Your task to perform on an android device: toggle notification dots Image 0: 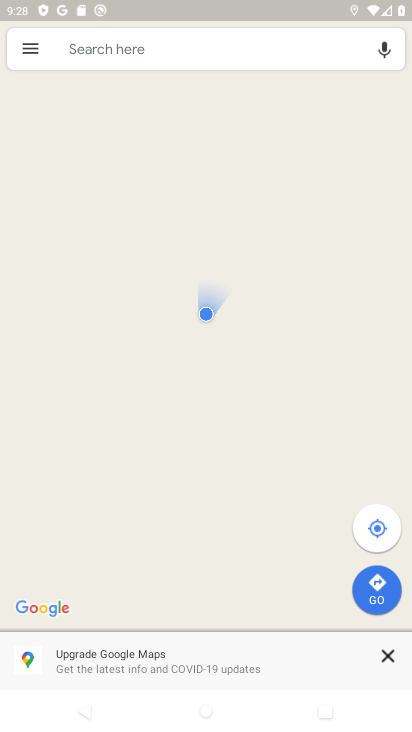
Step 0: press home button
Your task to perform on an android device: toggle notification dots Image 1: 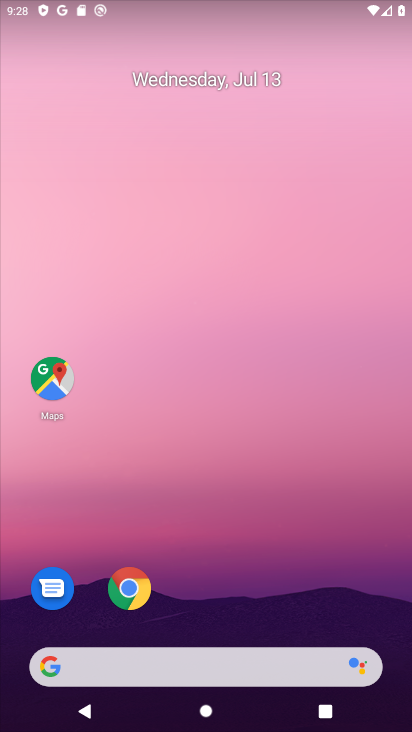
Step 1: drag from (229, 561) to (274, 91)
Your task to perform on an android device: toggle notification dots Image 2: 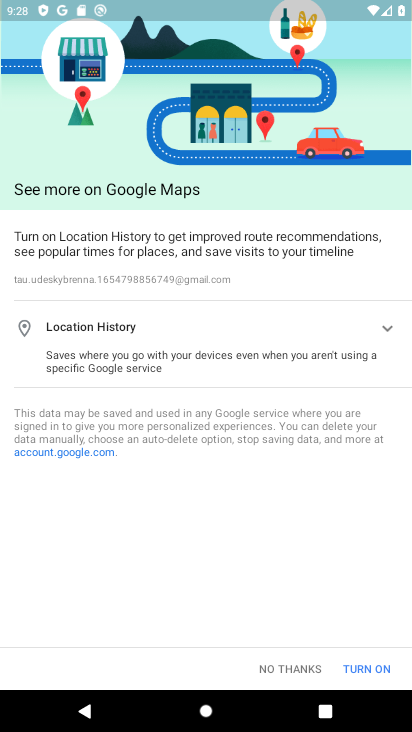
Step 2: press home button
Your task to perform on an android device: toggle notification dots Image 3: 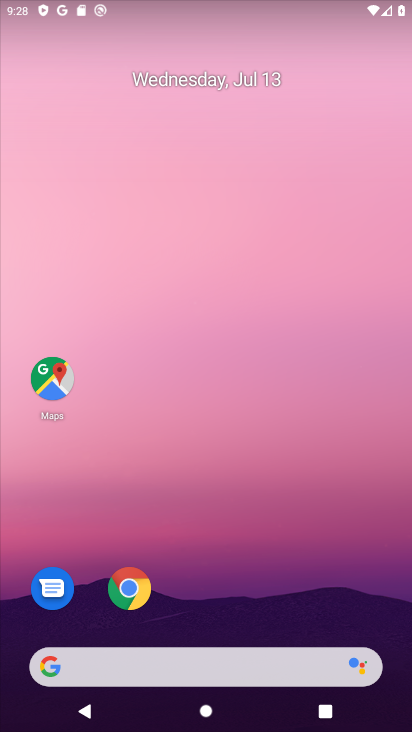
Step 3: drag from (212, 624) to (230, 109)
Your task to perform on an android device: toggle notification dots Image 4: 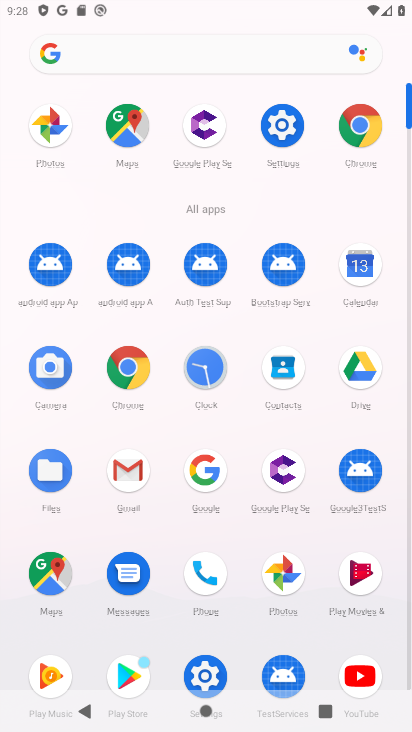
Step 4: click (282, 129)
Your task to perform on an android device: toggle notification dots Image 5: 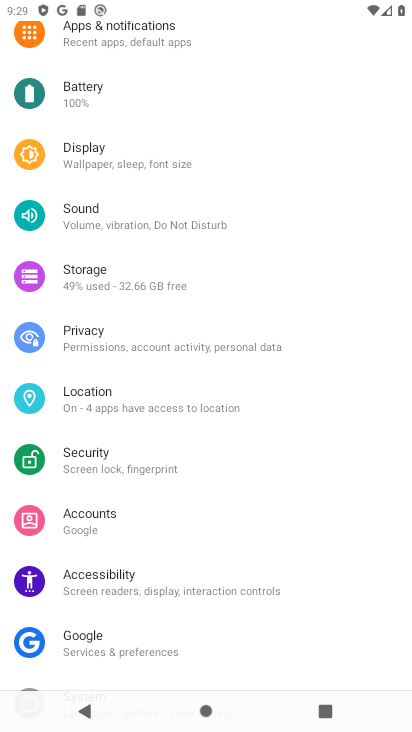
Step 5: click (136, 34)
Your task to perform on an android device: toggle notification dots Image 6: 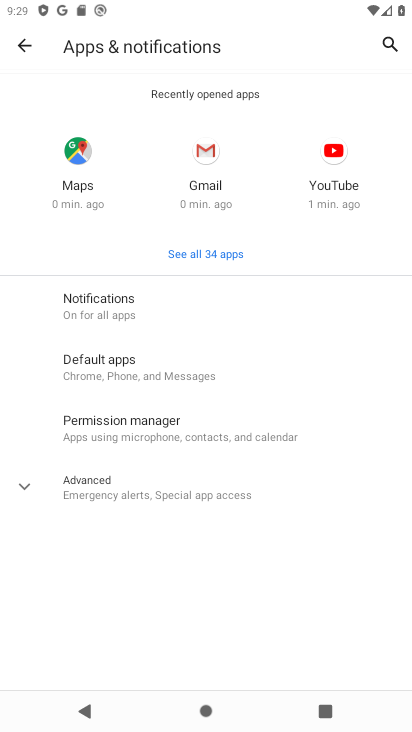
Step 6: click (120, 309)
Your task to perform on an android device: toggle notification dots Image 7: 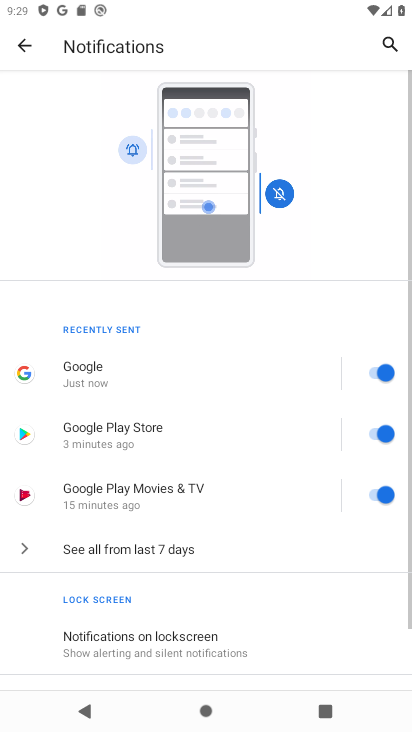
Step 7: drag from (238, 549) to (184, 93)
Your task to perform on an android device: toggle notification dots Image 8: 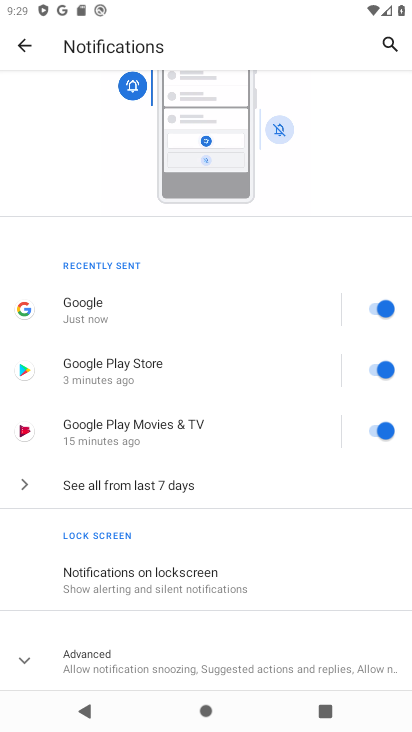
Step 8: click (113, 668)
Your task to perform on an android device: toggle notification dots Image 9: 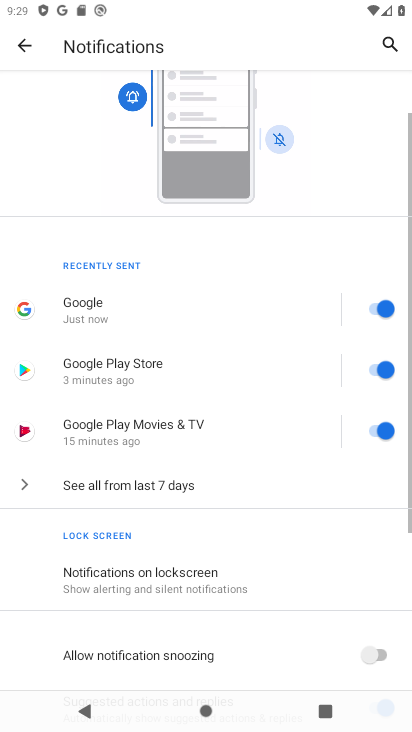
Step 9: drag from (242, 637) to (232, 245)
Your task to perform on an android device: toggle notification dots Image 10: 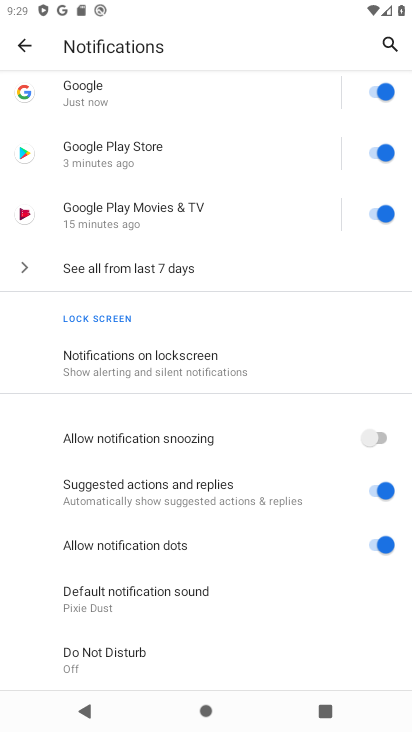
Step 10: click (382, 542)
Your task to perform on an android device: toggle notification dots Image 11: 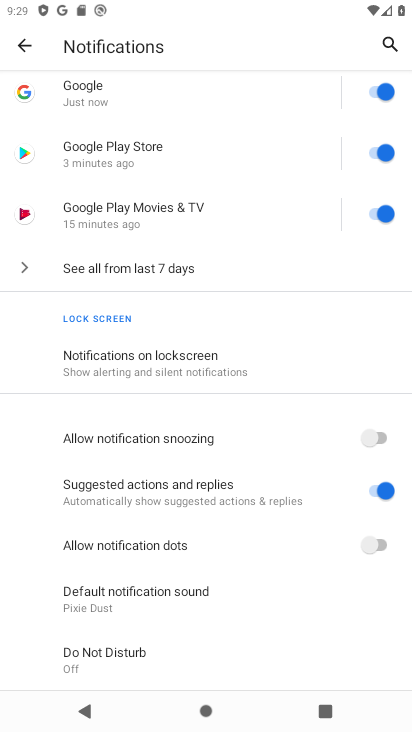
Step 11: task complete